Your task to perform on an android device: Open my contact list Image 0: 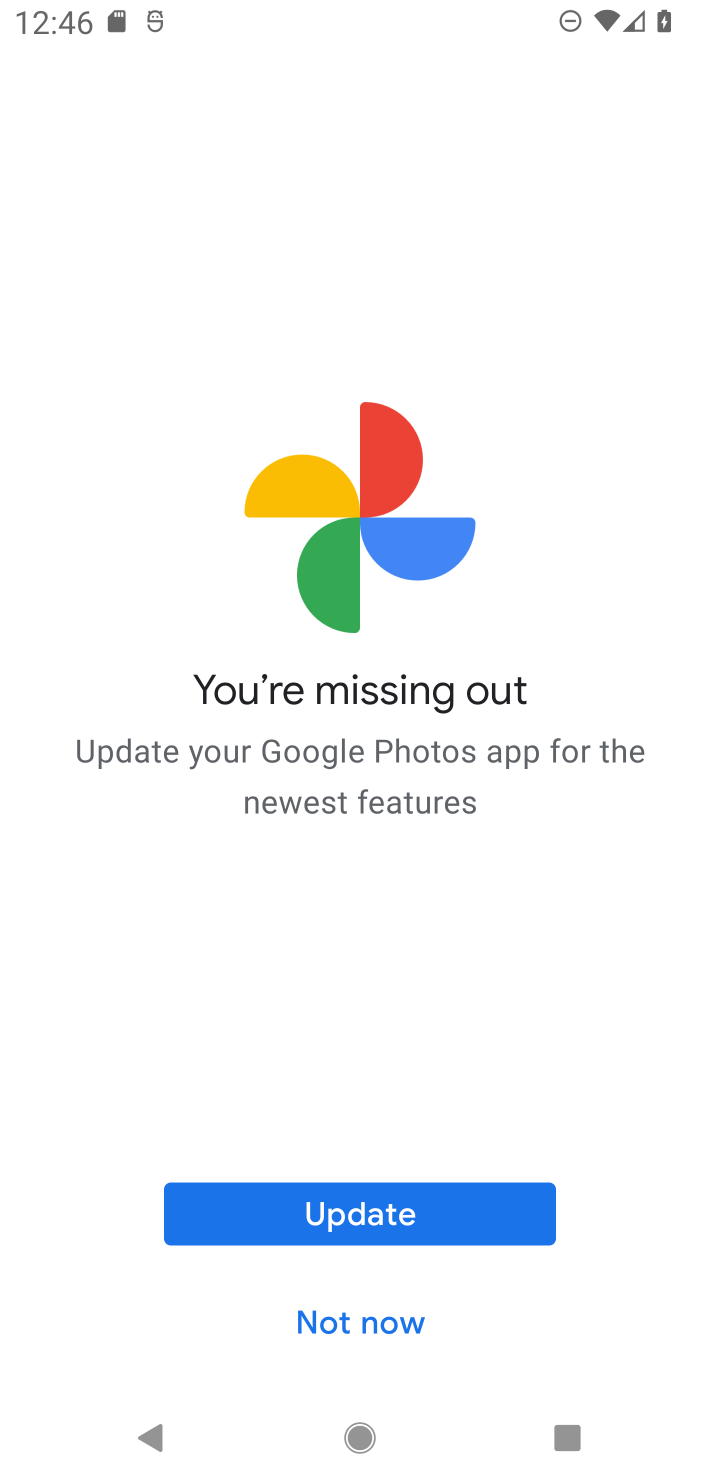
Step 0: click (350, 1326)
Your task to perform on an android device: Open my contact list Image 1: 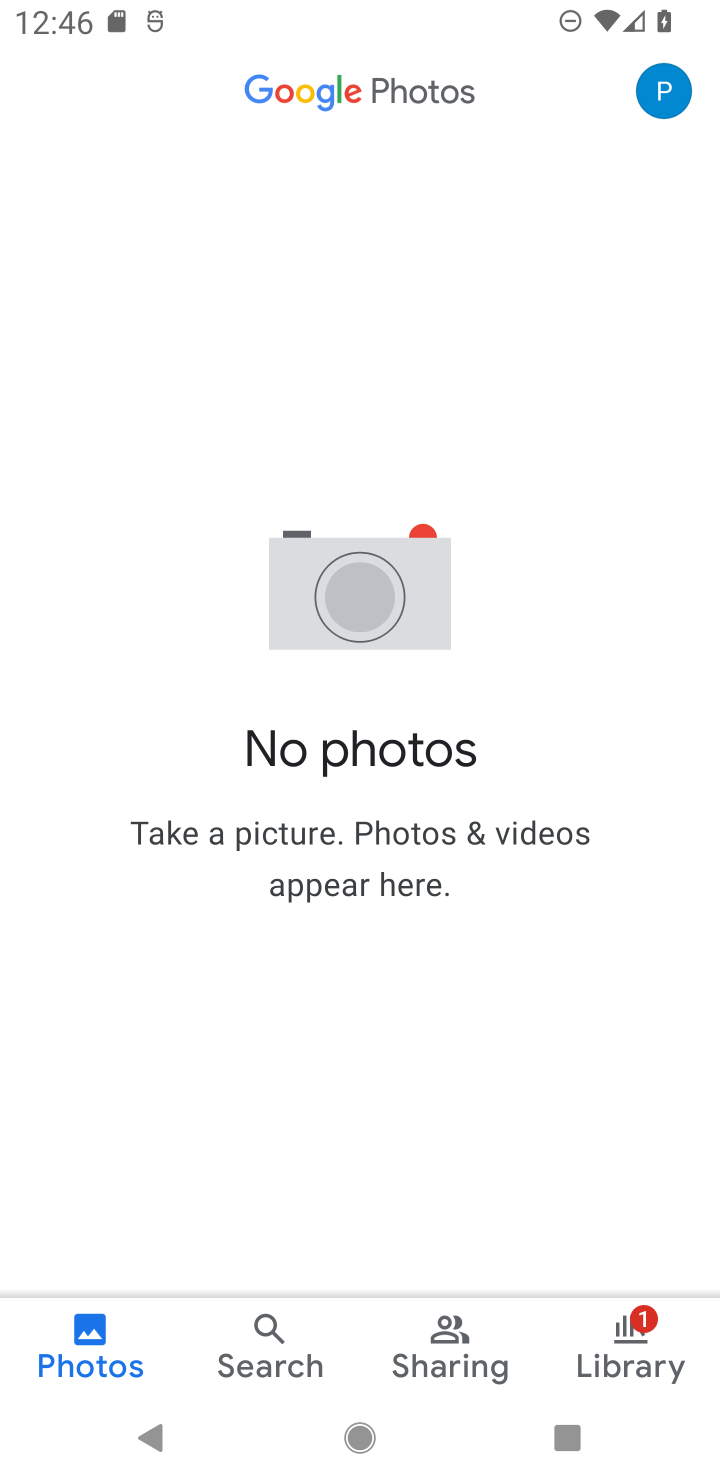
Step 1: press home button
Your task to perform on an android device: Open my contact list Image 2: 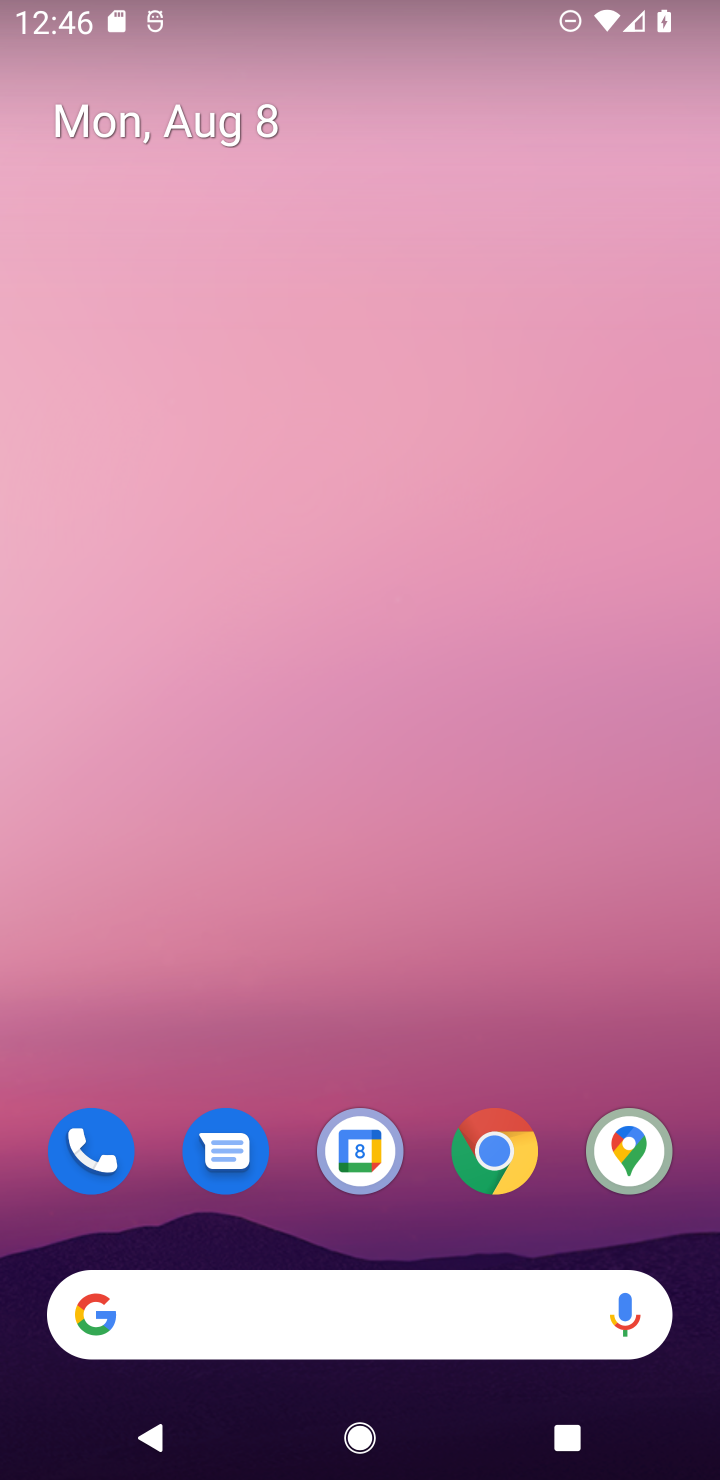
Step 2: drag from (301, 1195) to (164, 345)
Your task to perform on an android device: Open my contact list Image 3: 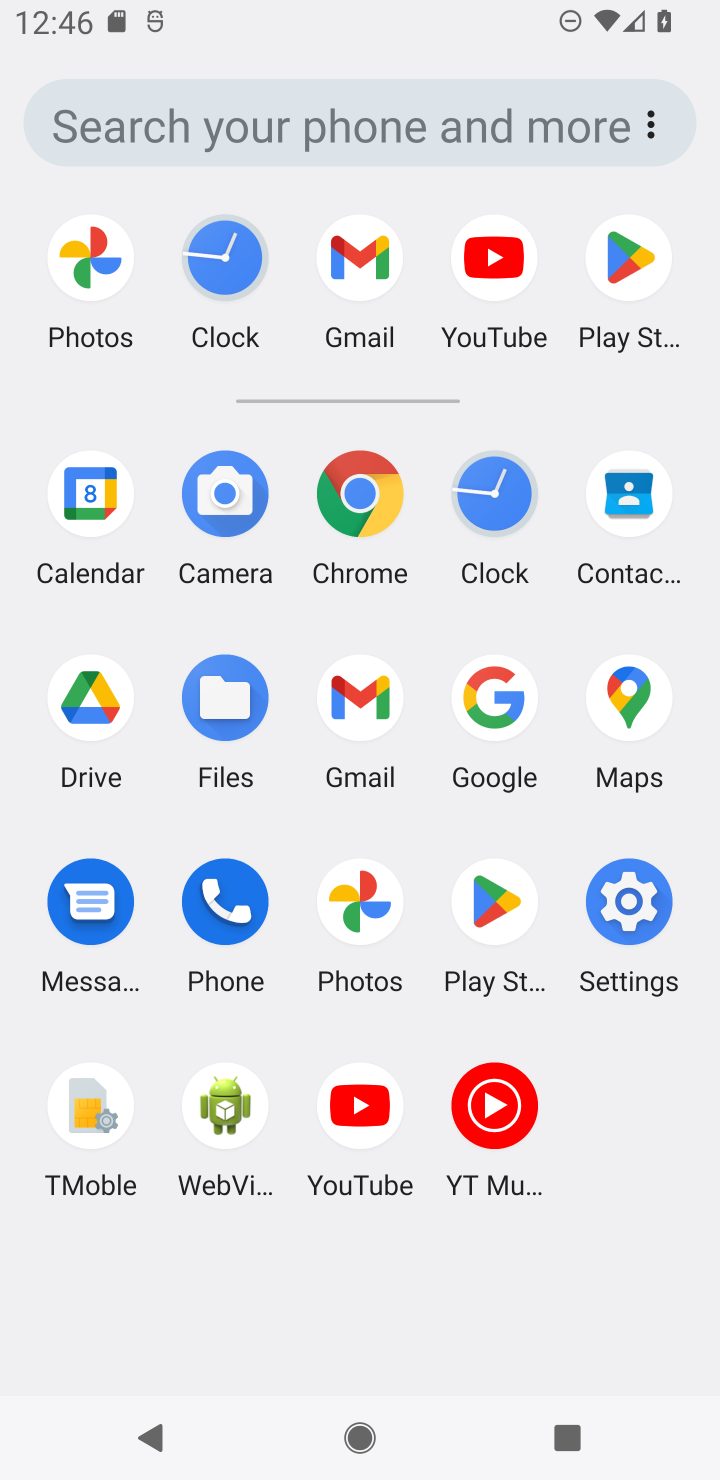
Step 3: click (202, 902)
Your task to perform on an android device: Open my contact list Image 4: 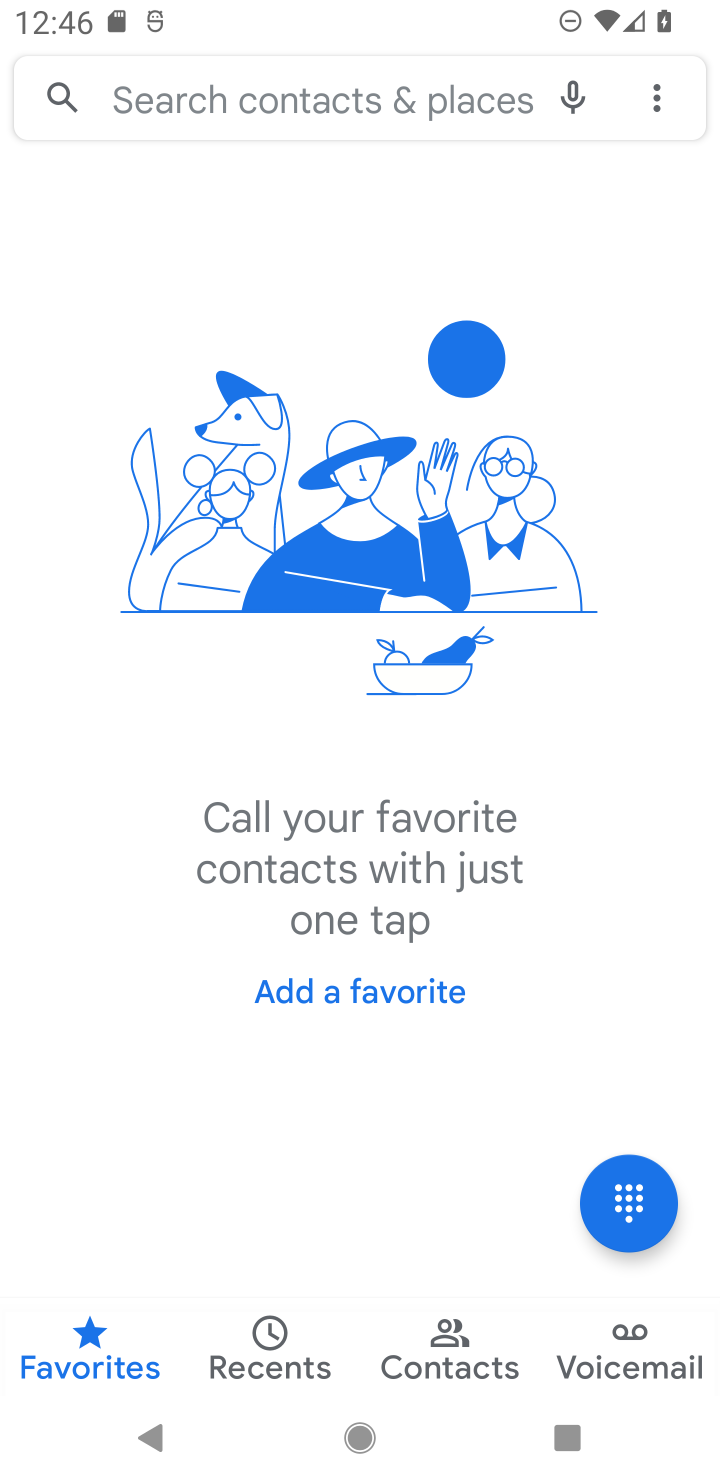
Step 4: click (433, 1377)
Your task to perform on an android device: Open my contact list Image 5: 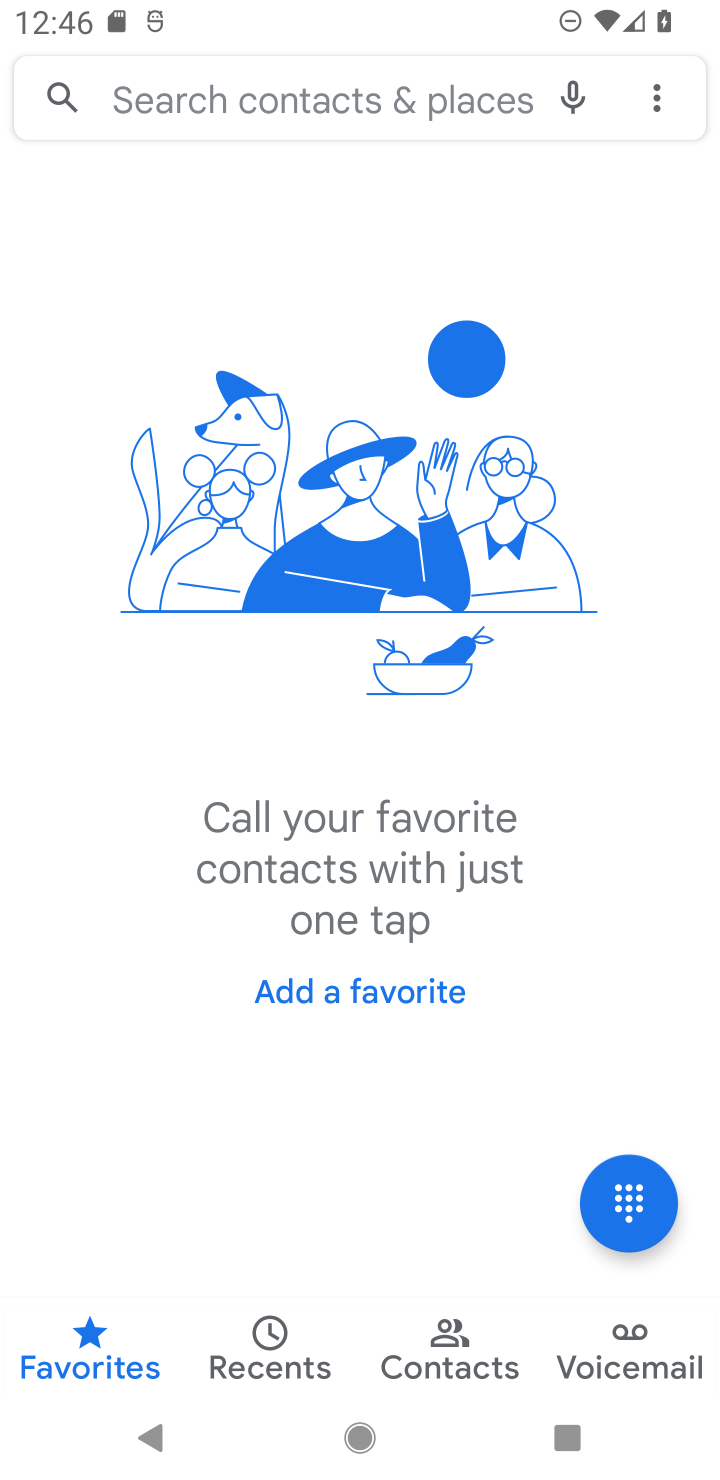
Step 5: click (442, 1350)
Your task to perform on an android device: Open my contact list Image 6: 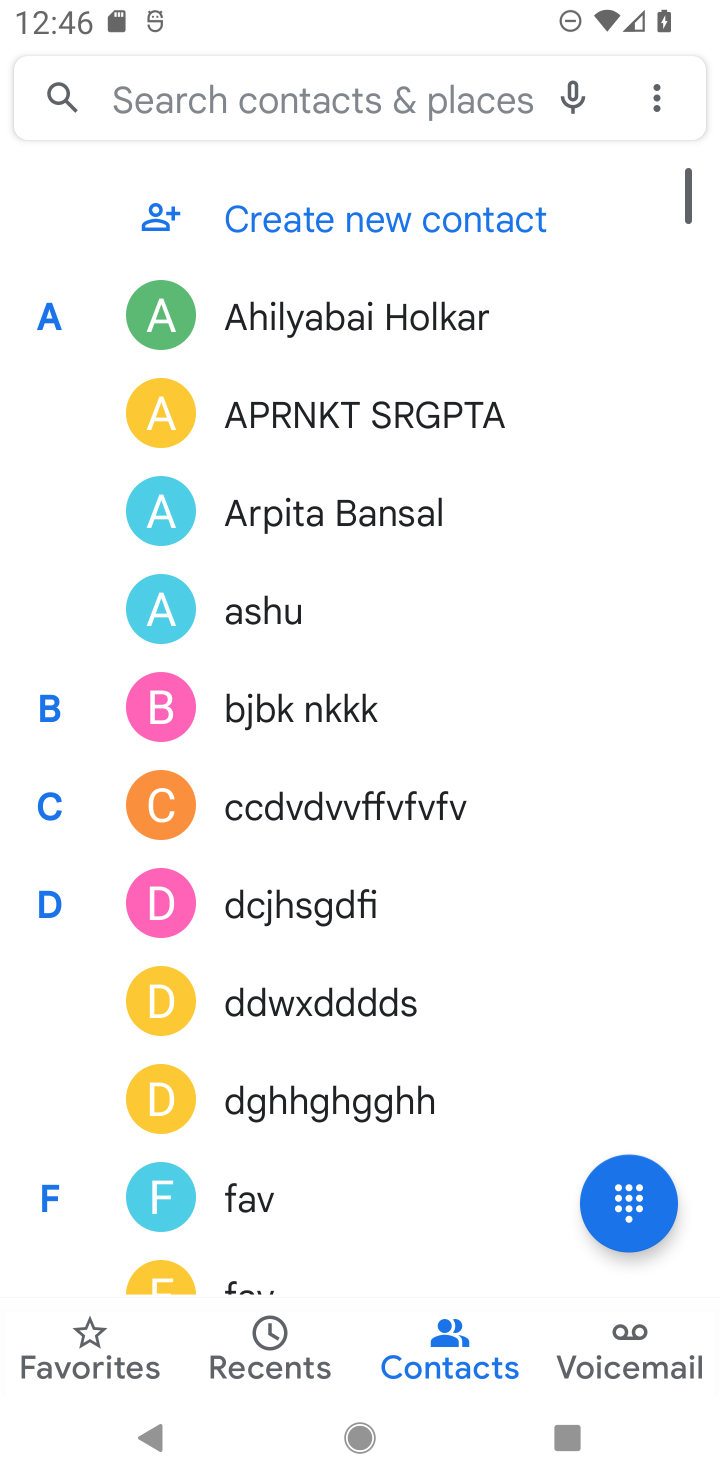
Step 6: task complete